Your task to perform on an android device: turn on sleep mode Image 0: 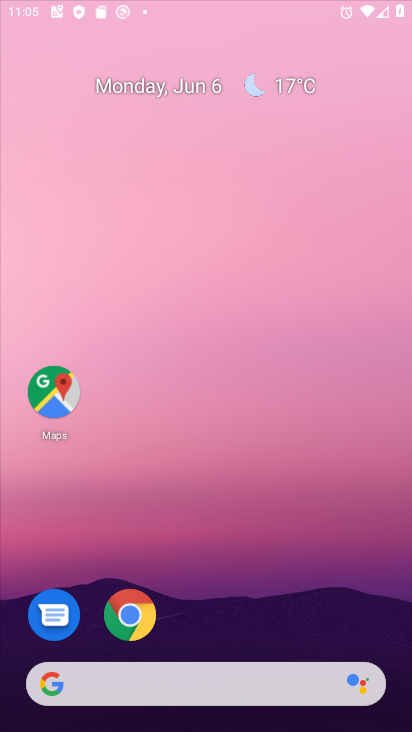
Step 0: press home button
Your task to perform on an android device: turn on sleep mode Image 1: 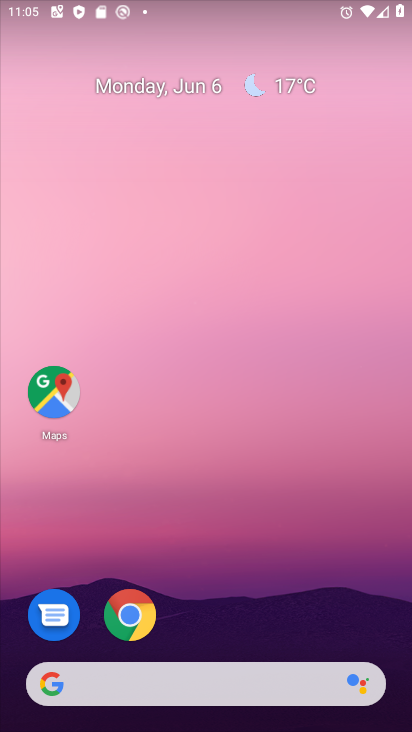
Step 1: drag from (226, 646) to (253, 0)
Your task to perform on an android device: turn on sleep mode Image 2: 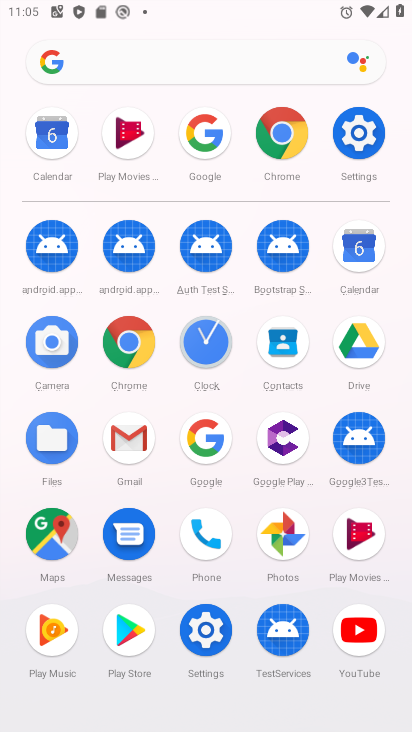
Step 2: click (356, 130)
Your task to perform on an android device: turn on sleep mode Image 3: 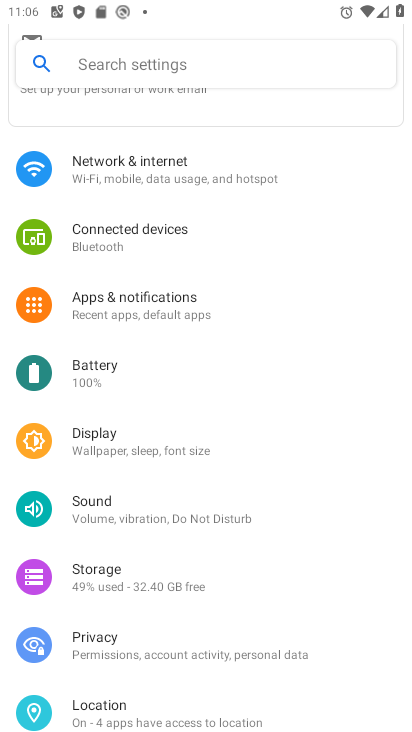
Step 3: click (129, 433)
Your task to perform on an android device: turn on sleep mode Image 4: 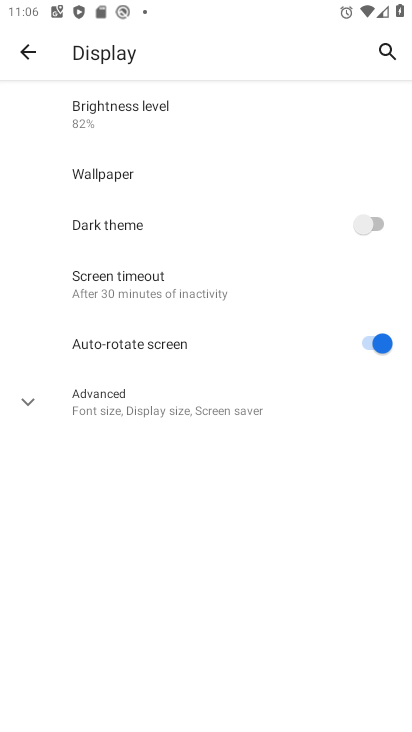
Step 4: click (32, 403)
Your task to perform on an android device: turn on sleep mode Image 5: 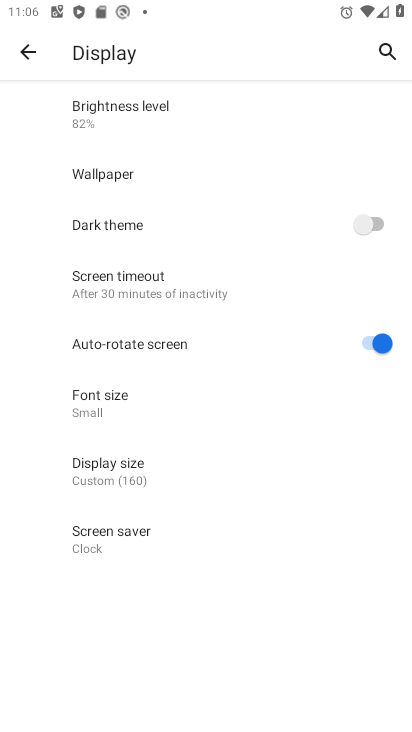
Step 5: task complete